Your task to perform on an android device: Open eBay Image 0: 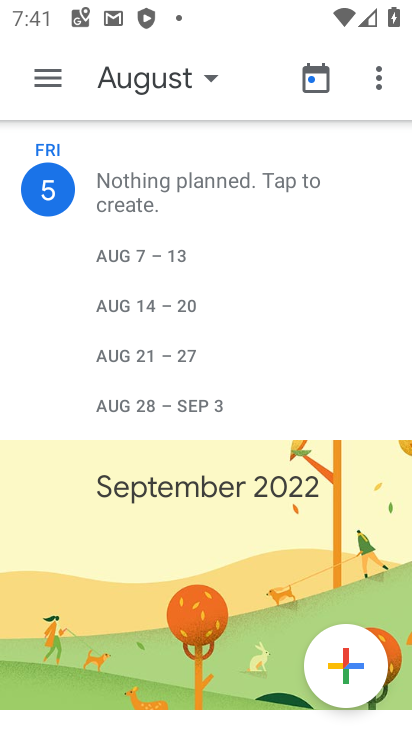
Step 0: press home button
Your task to perform on an android device: Open eBay Image 1: 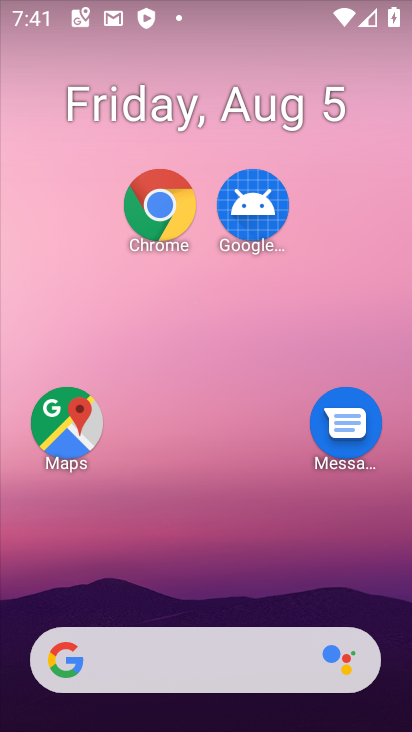
Step 1: click (188, 207)
Your task to perform on an android device: Open eBay Image 2: 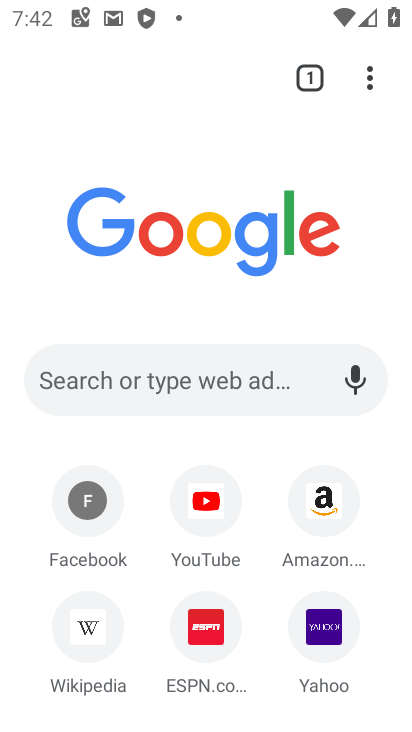
Step 2: click (227, 391)
Your task to perform on an android device: Open eBay Image 3: 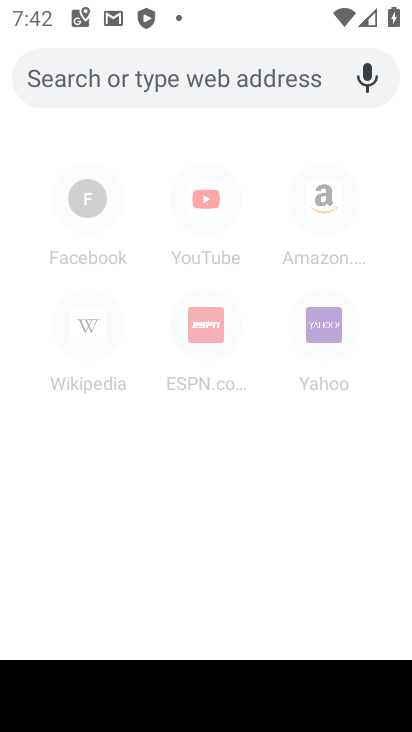
Step 3: type "ebay"
Your task to perform on an android device: Open eBay Image 4: 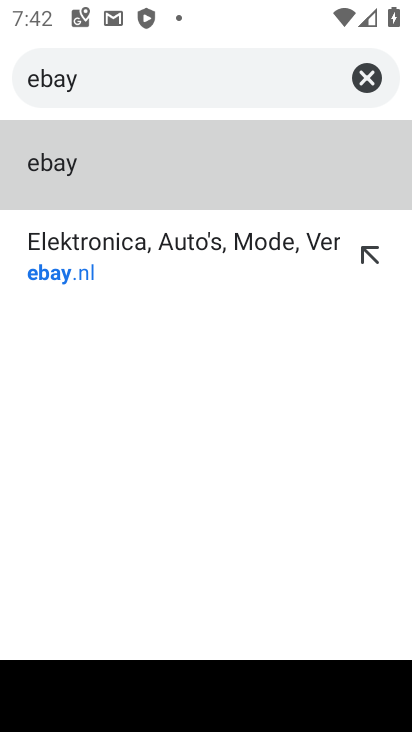
Step 4: click (121, 259)
Your task to perform on an android device: Open eBay Image 5: 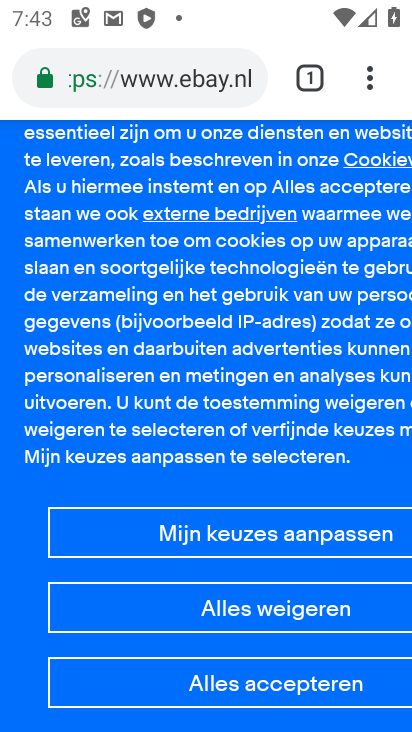
Step 5: task complete